Your task to perform on an android device: open chrome and create a bookmark for the current page Image 0: 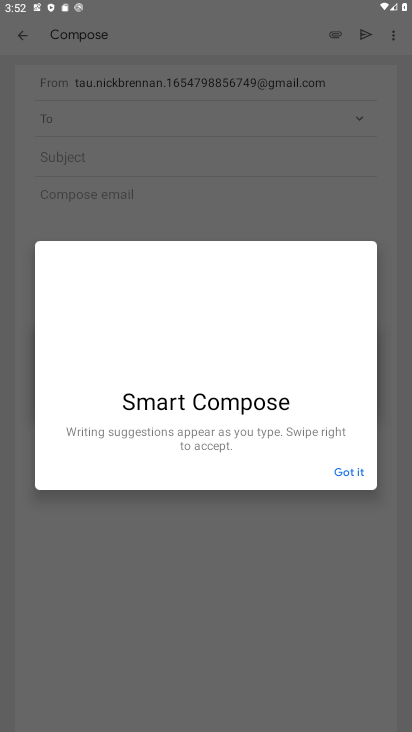
Step 0: press home button
Your task to perform on an android device: open chrome and create a bookmark for the current page Image 1: 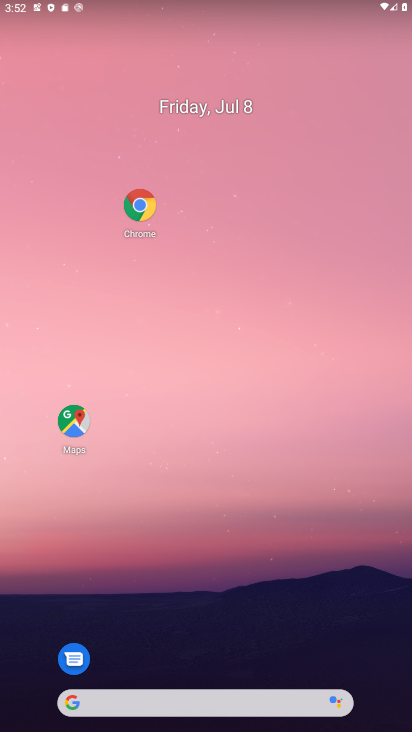
Step 1: click (137, 222)
Your task to perform on an android device: open chrome and create a bookmark for the current page Image 2: 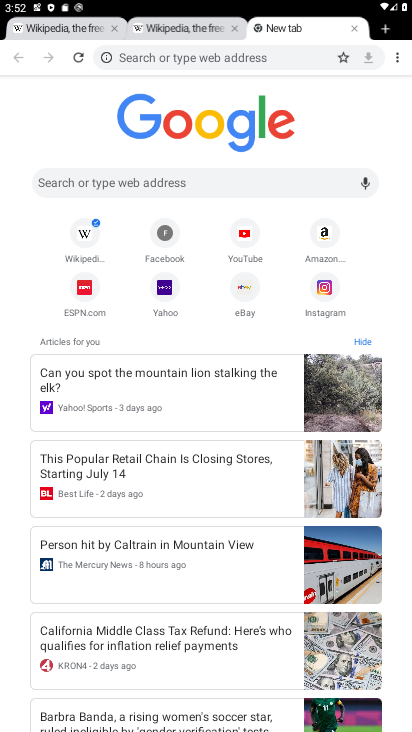
Step 2: click (130, 666)
Your task to perform on an android device: open chrome and create a bookmark for the current page Image 3: 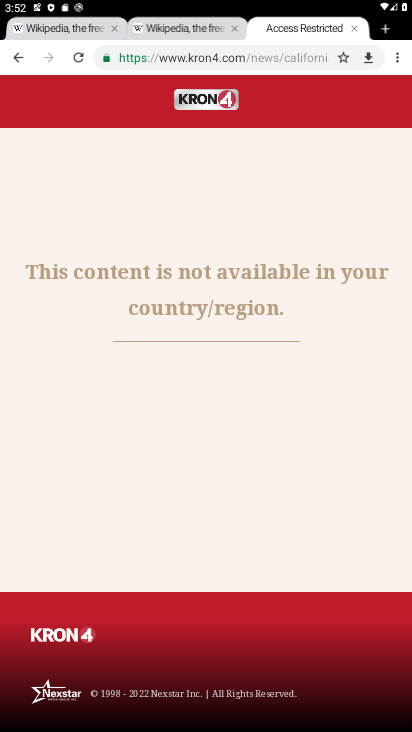
Step 3: click (339, 55)
Your task to perform on an android device: open chrome and create a bookmark for the current page Image 4: 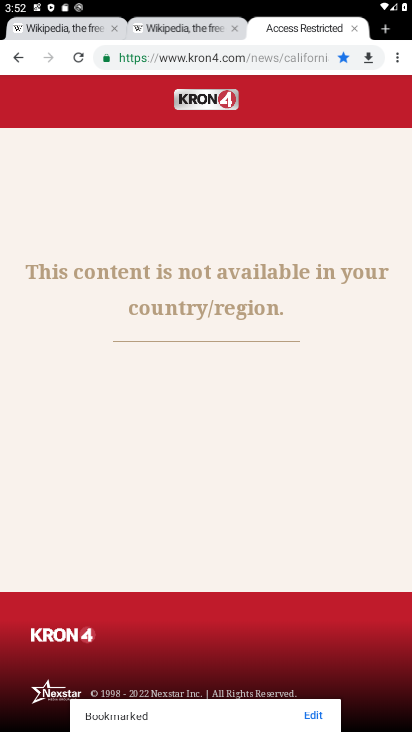
Step 4: task complete